Your task to perform on an android device: Empty the shopping cart on ebay. Search for "logitech g903" on ebay, select the first entry, and add it to the cart. Image 0: 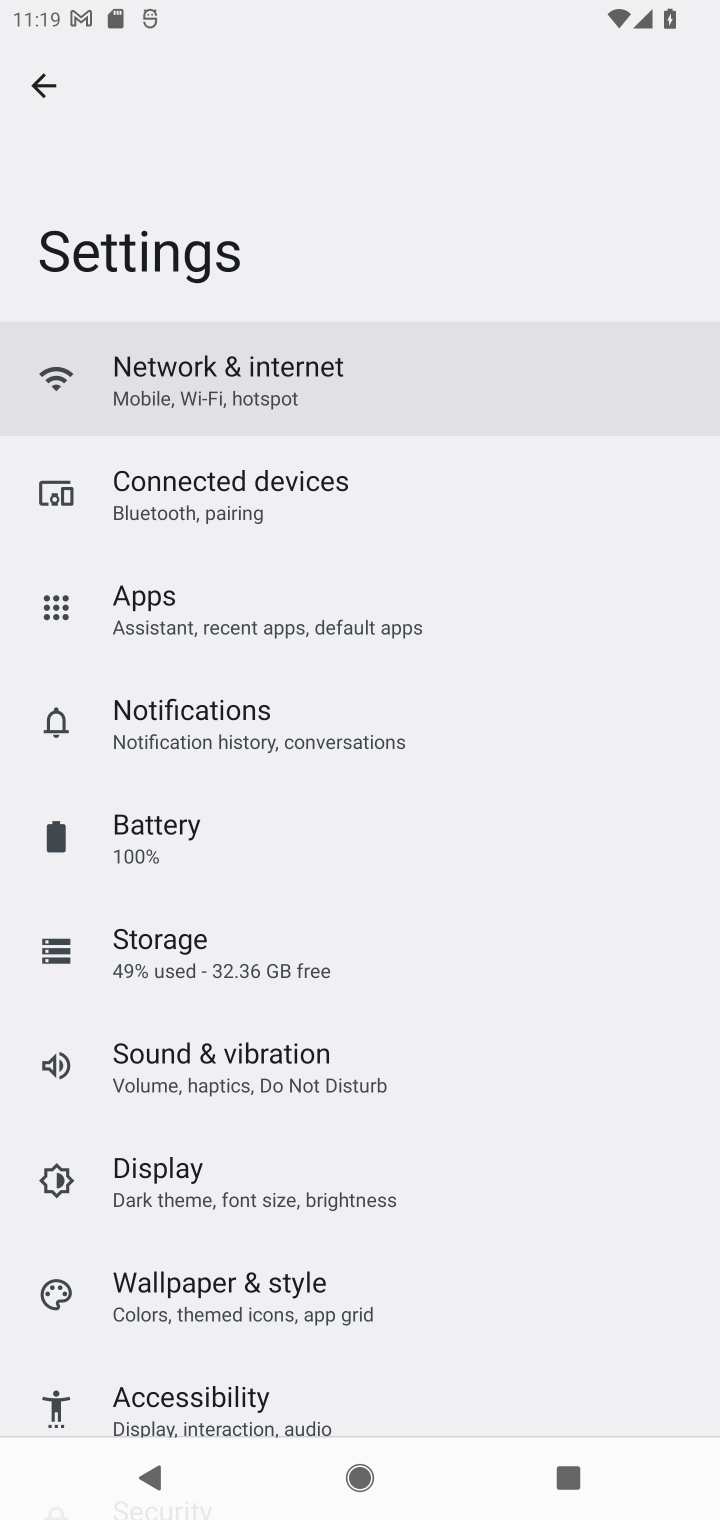
Step 0: press home button
Your task to perform on an android device: Empty the shopping cart on ebay. Search for "logitech g903" on ebay, select the first entry, and add it to the cart. Image 1: 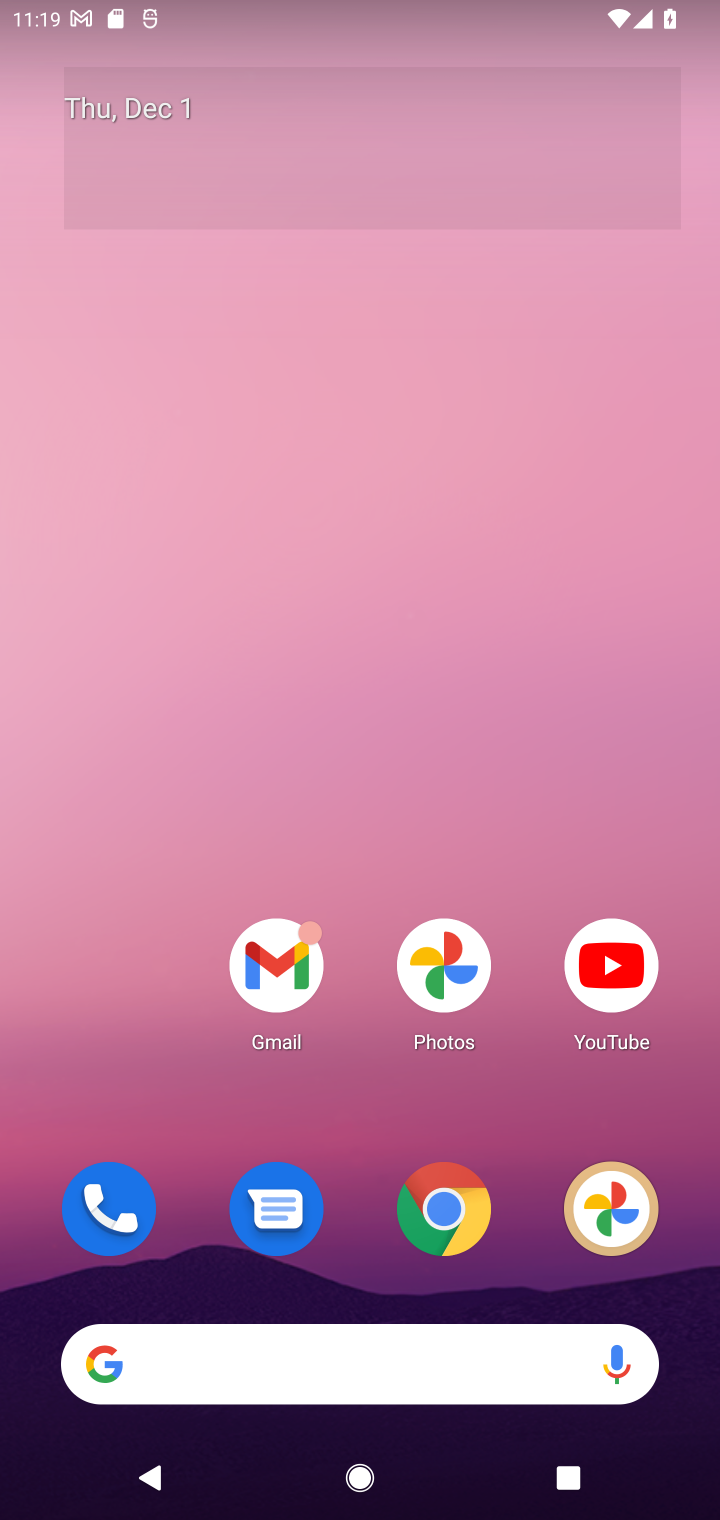
Step 1: click (443, 1190)
Your task to perform on an android device: Empty the shopping cart on ebay. Search for "logitech g903" on ebay, select the first entry, and add it to the cart. Image 2: 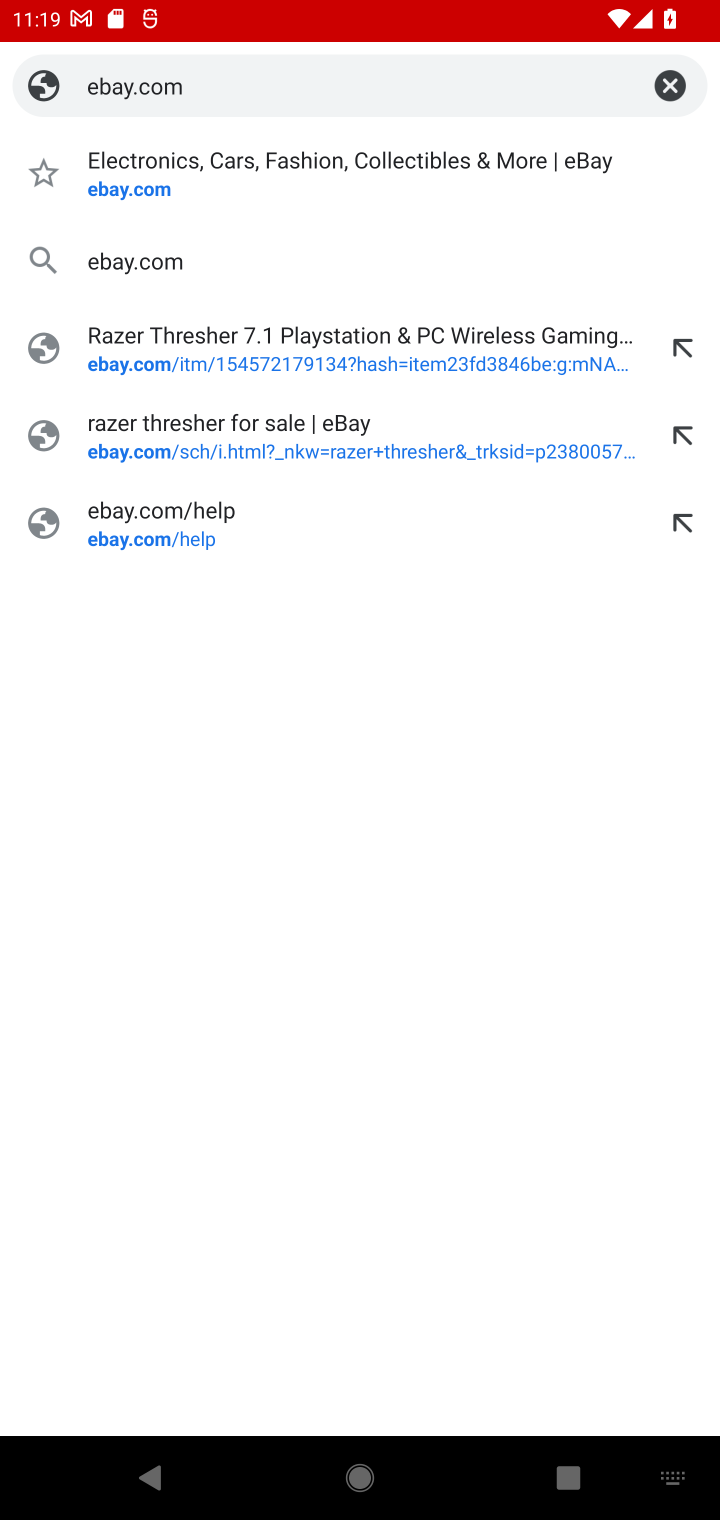
Step 2: click (152, 165)
Your task to perform on an android device: Empty the shopping cart on ebay. Search for "logitech g903" on ebay, select the first entry, and add it to the cart. Image 3: 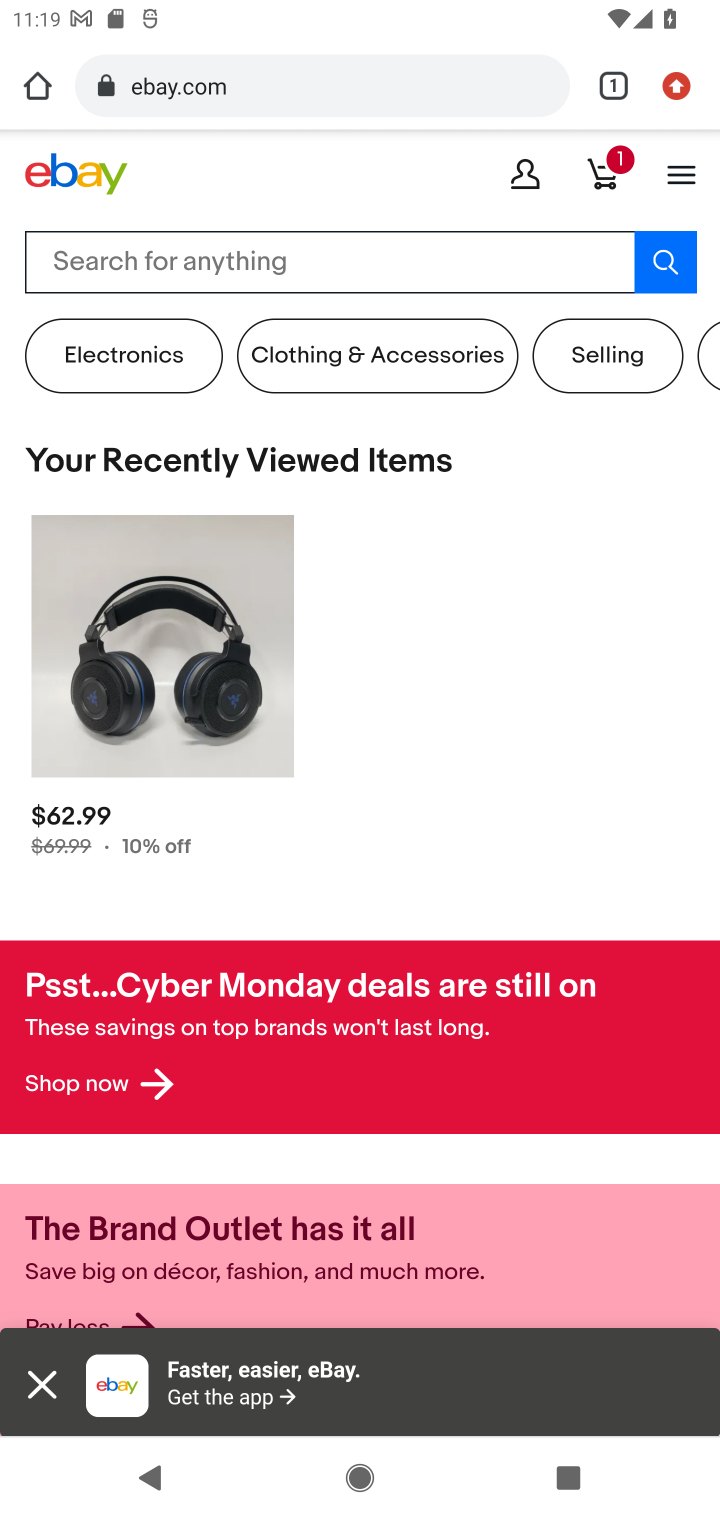
Step 3: click (378, 268)
Your task to perform on an android device: Empty the shopping cart on ebay. Search for "logitech g903" on ebay, select the first entry, and add it to the cart. Image 4: 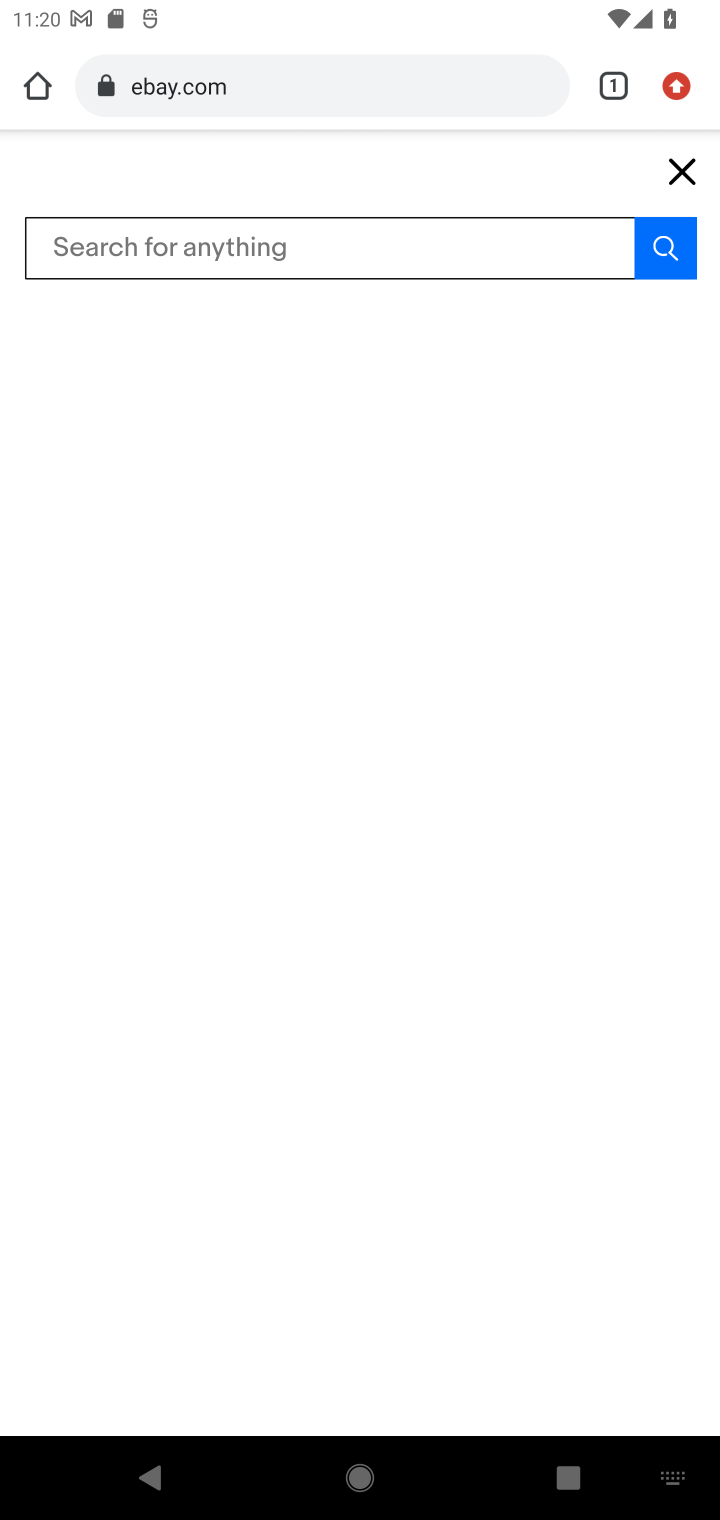
Step 4: type "logitech g903"
Your task to perform on an android device: Empty the shopping cart on ebay. Search for "logitech g903" on ebay, select the first entry, and add it to the cart. Image 5: 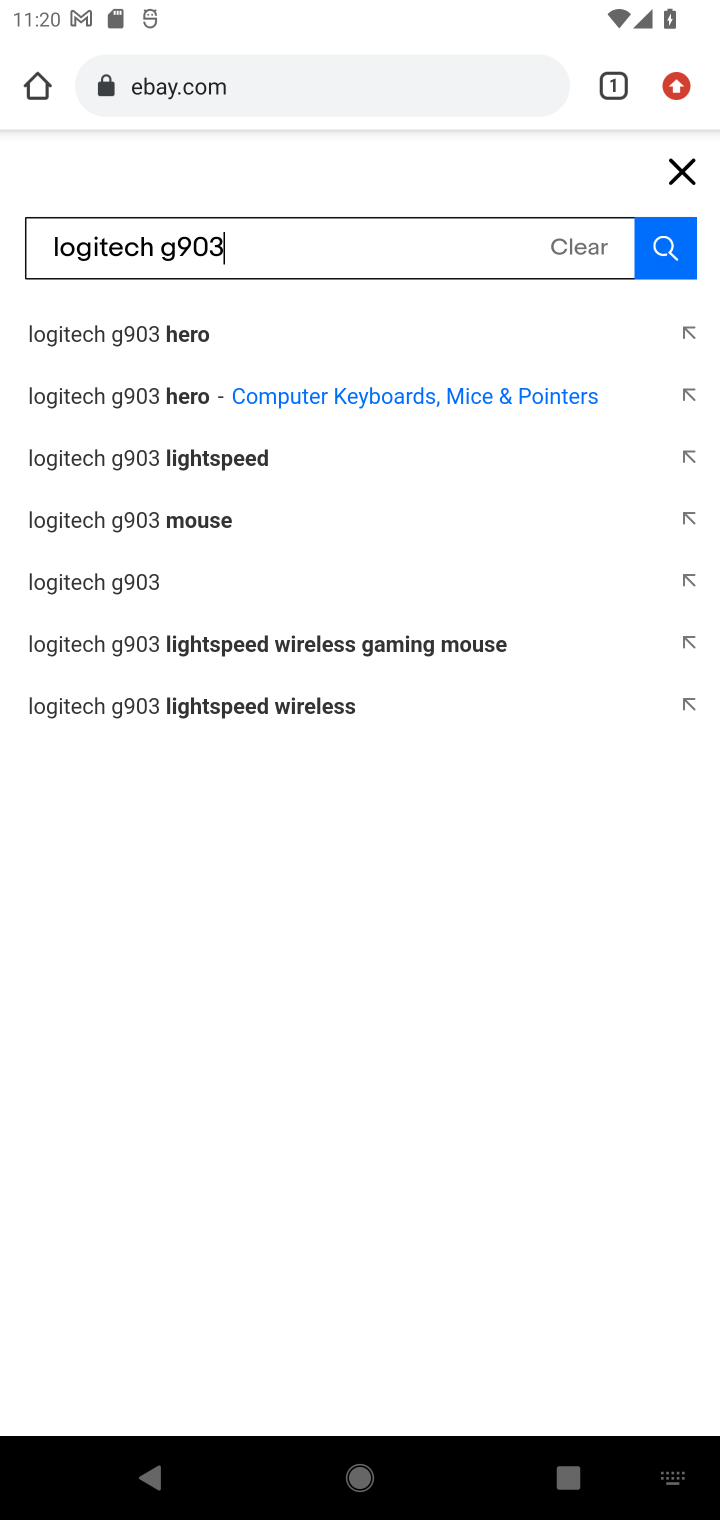
Step 5: click (158, 326)
Your task to perform on an android device: Empty the shopping cart on ebay. Search for "logitech g903" on ebay, select the first entry, and add it to the cart. Image 6: 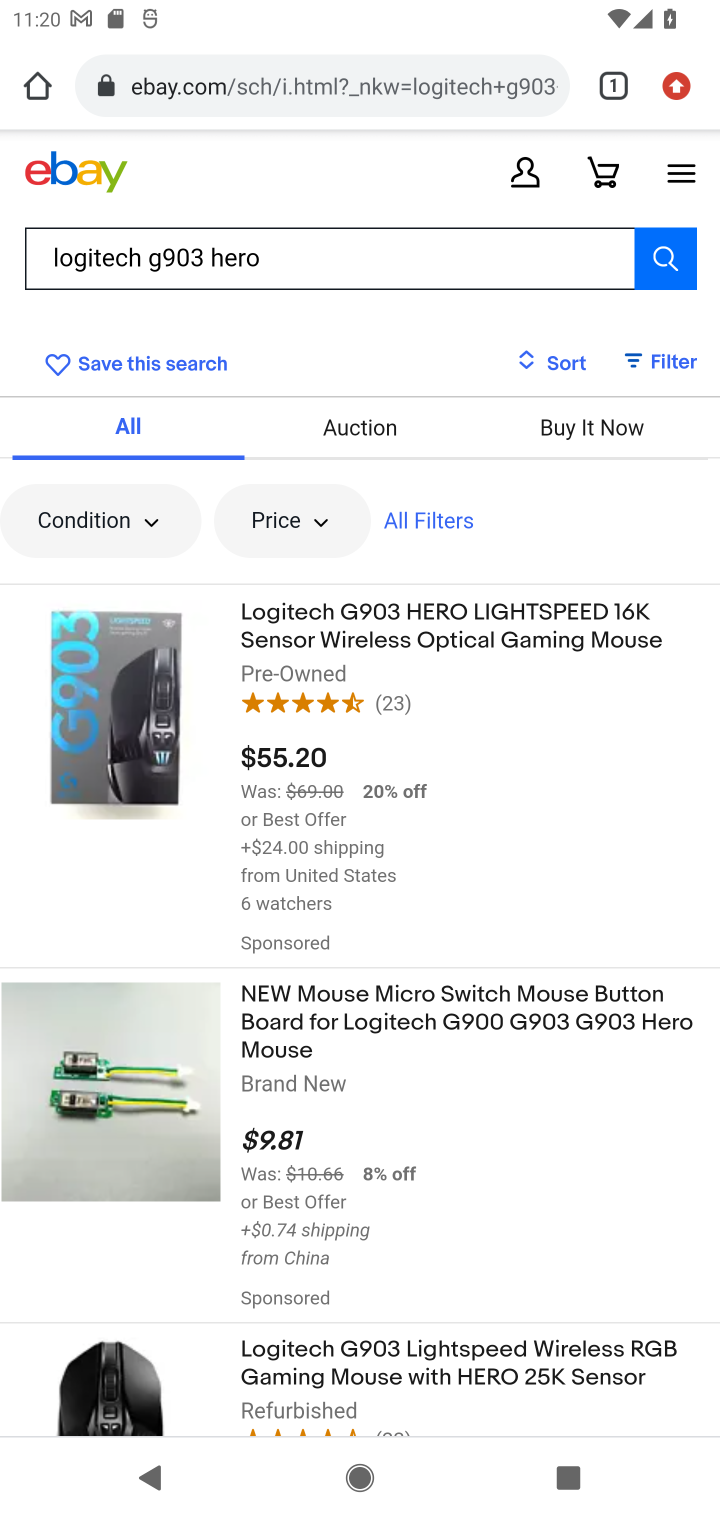
Step 6: click (145, 763)
Your task to perform on an android device: Empty the shopping cart on ebay. Search for "logitech g903" on ebay, select the first entry, and add it to the cart. Image 7: 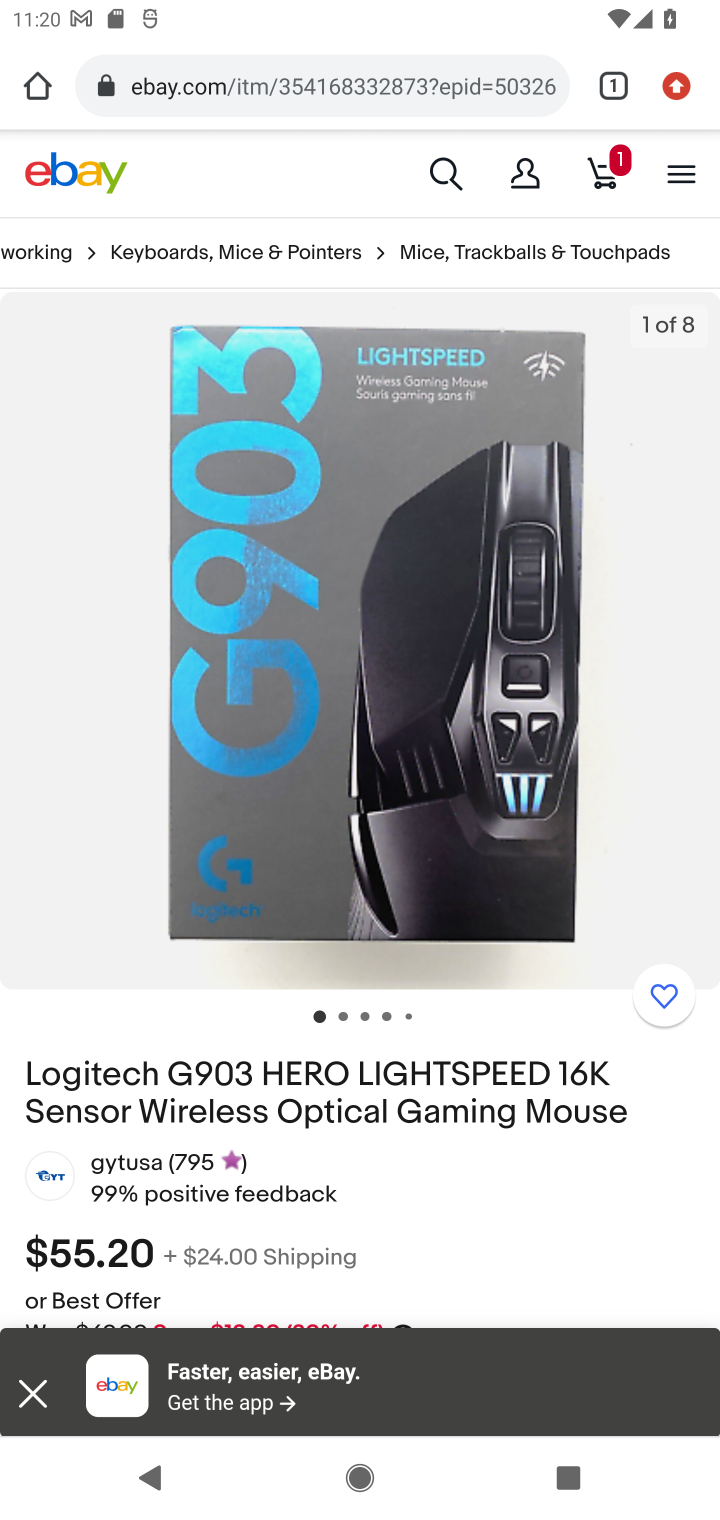
Step 7: drag from (372, 1155) to (424, 591)
Your task to perform on an android device: Empty the shopping cart on ebay. Search for "logitech g903" on ebay, select the first entry, and add it to the cart. Image 8: 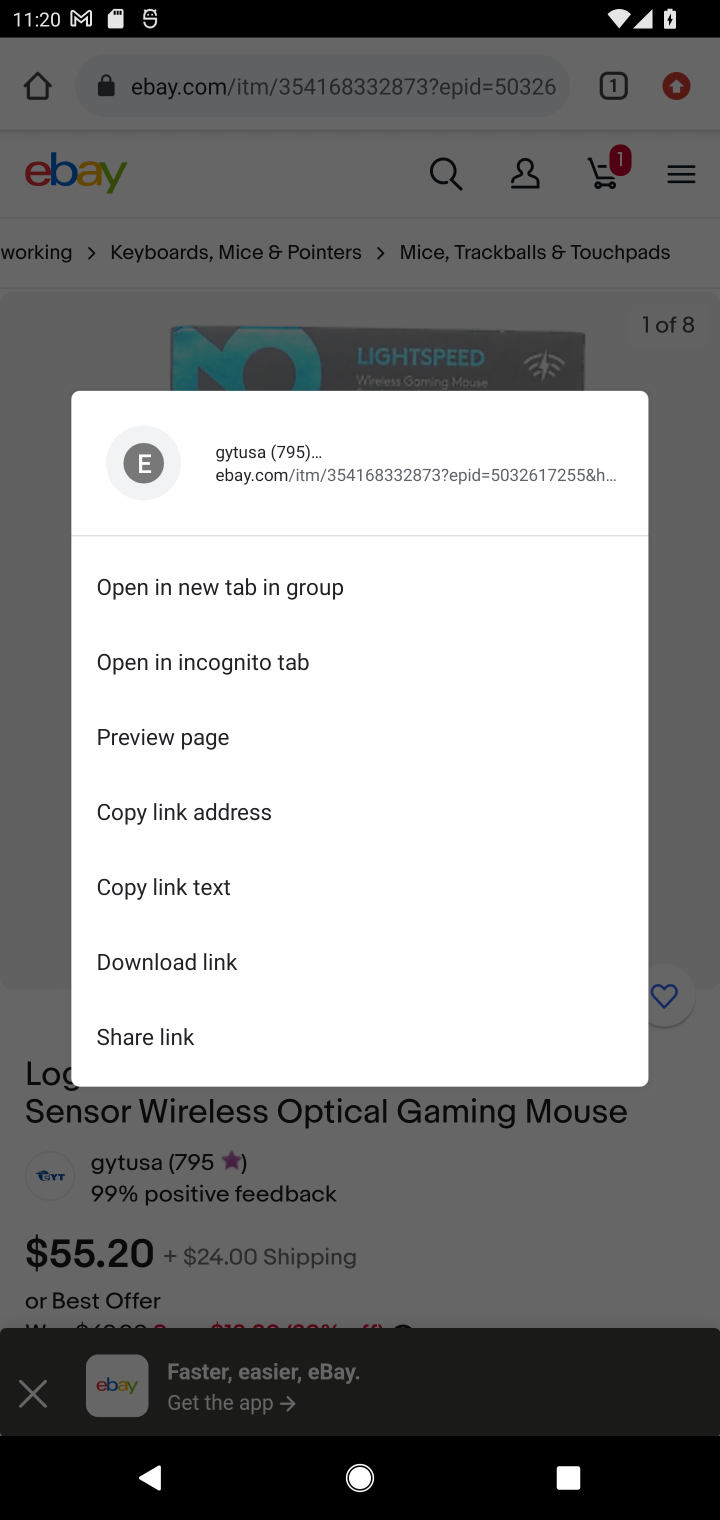
Step 8: click (507, 1233)
Your task to perform on an android device: Empty the shopping cart on ebay. Search for "logitech g903" on ebay, select the first entry, and add it to the cart. Image 9: 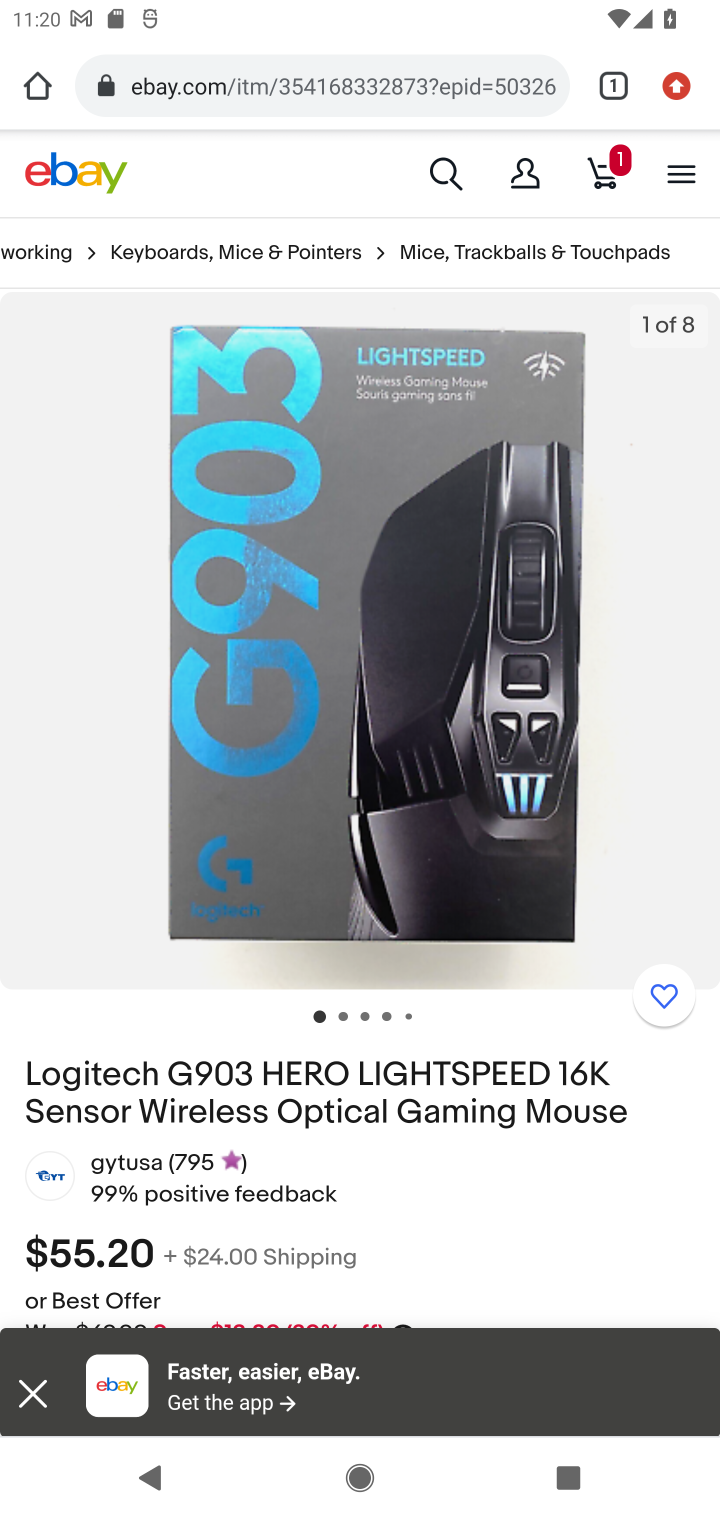
Step 9: drag from (507, 1233) to (409, 457)
Your task to perform on an android device: Empty the shopping cart on ebay. Search for "logitech g903" on ebay, select the first entry, and add it to the cart. Image 10: 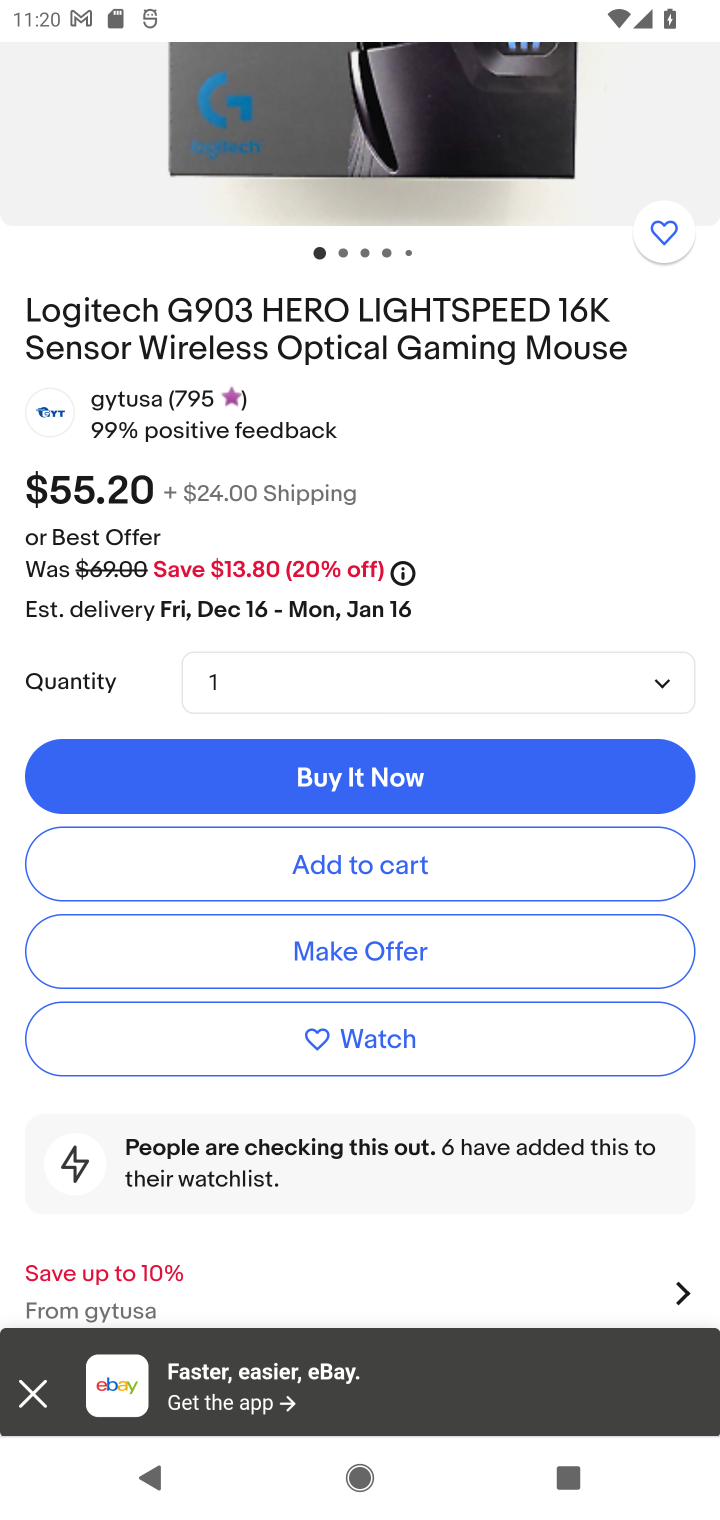
Step 10: click (364, 851)
Your task to perform on an android device: Empty the shopping cart on ebay. Search for "logitech g903" on ebay, select the first entry, and add it to the cart. Image 11: 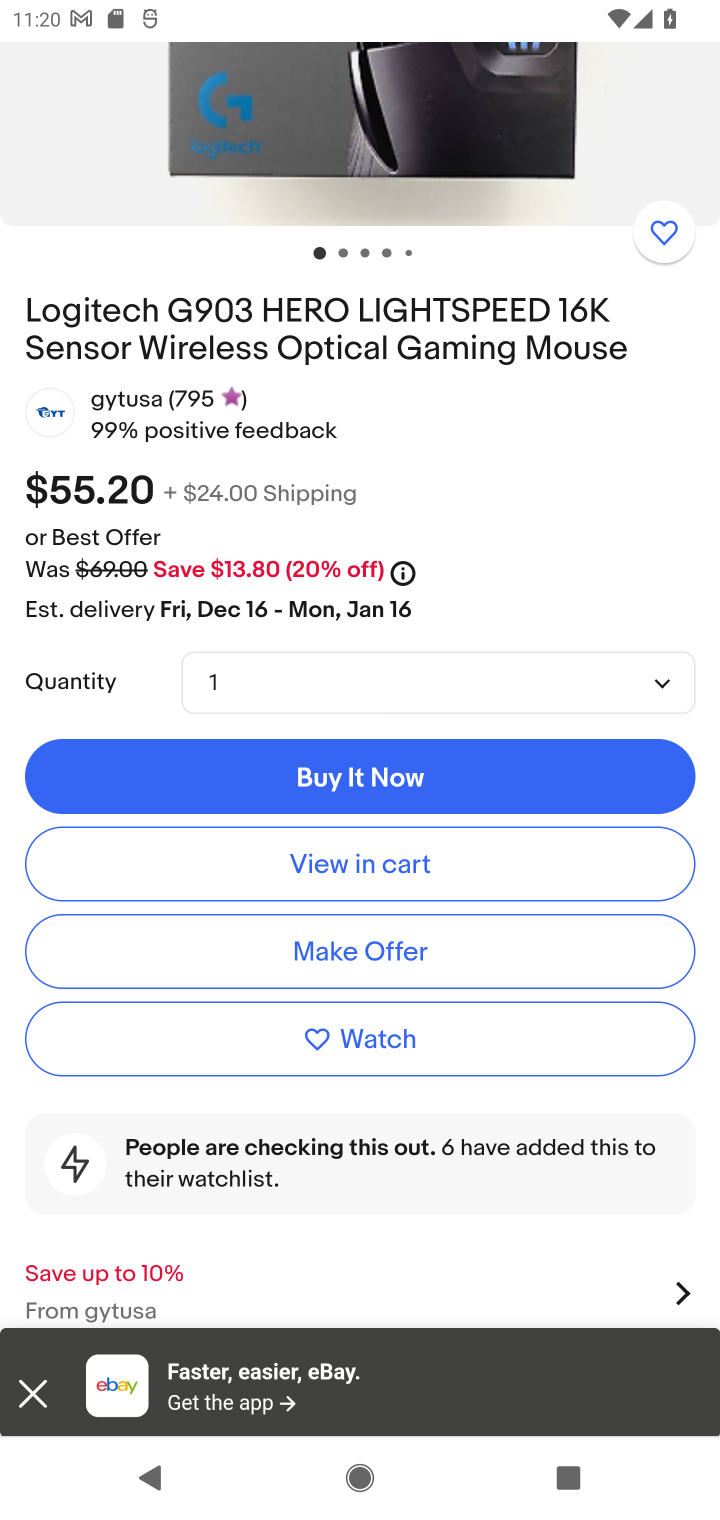
Step 11: click (364, 851)
Your task to perform on an android device: Empty the shopping cart on ebay. Search for "logitech g903" on ebay, select the first entry, and add it to the cart. Image 12: 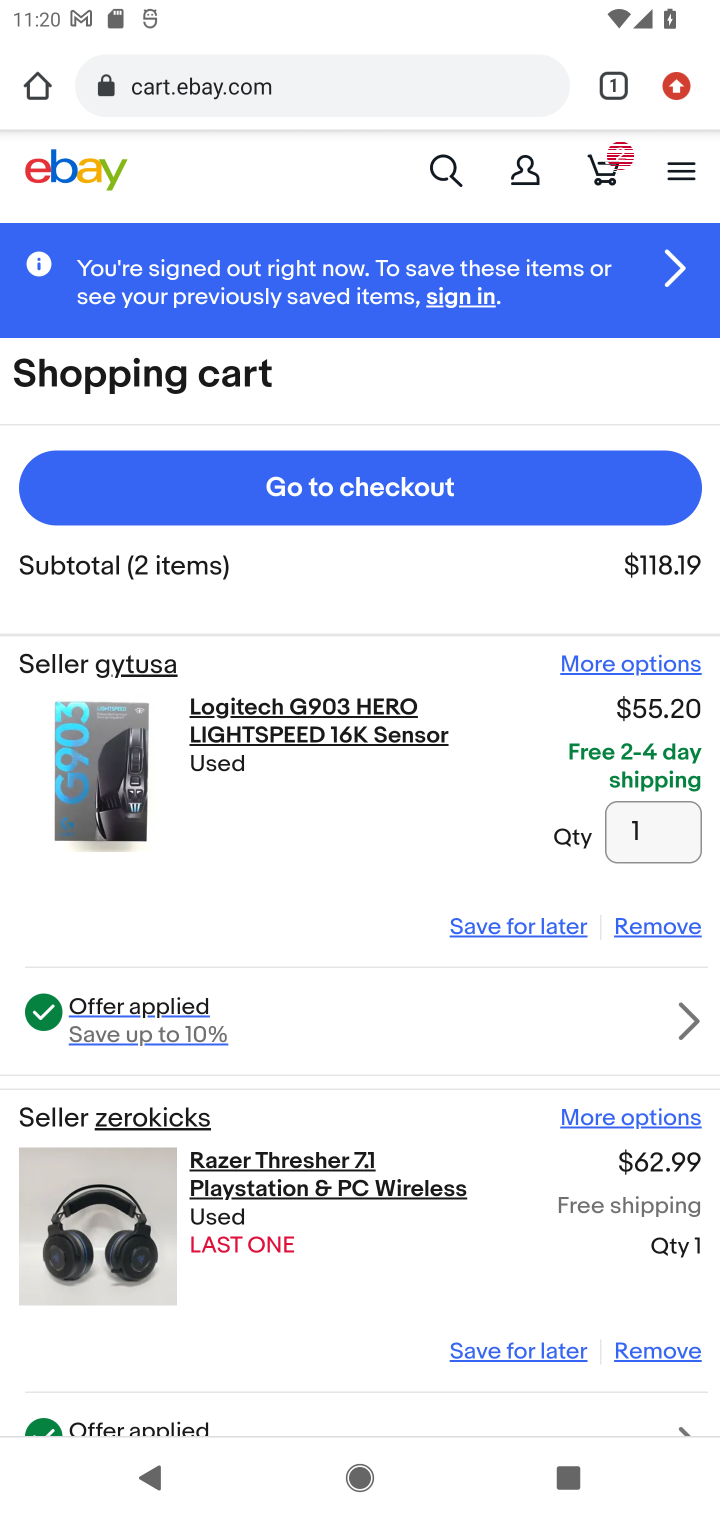
Step 12: click (420, 493)
Your task to perform on an android device: Empty the shopping cart on ebay. Search for "logitech g903" on ebay, select the first entry, and add it to the cart. Image 13: 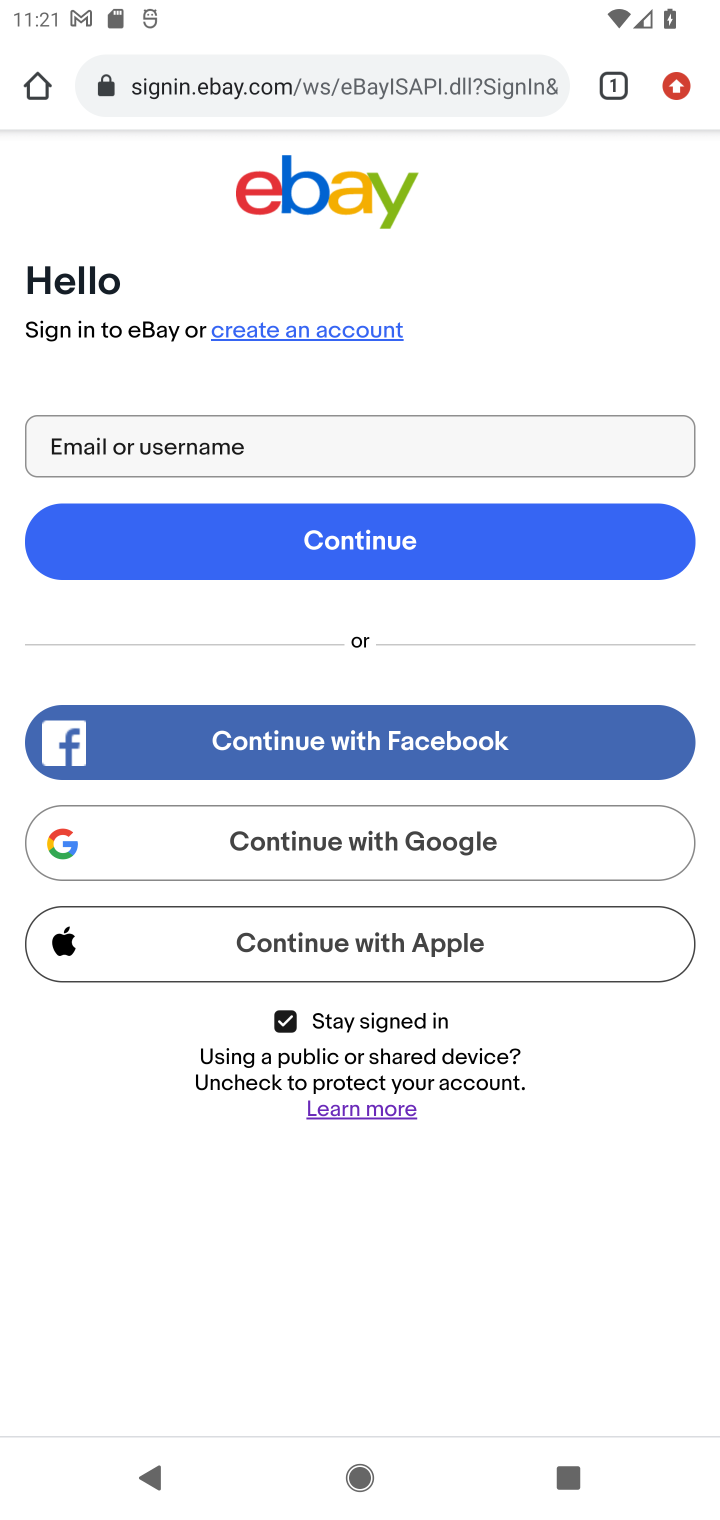
Step 13: task complete